Your task to perform on an android device: Toggle the flashlight Image 0: 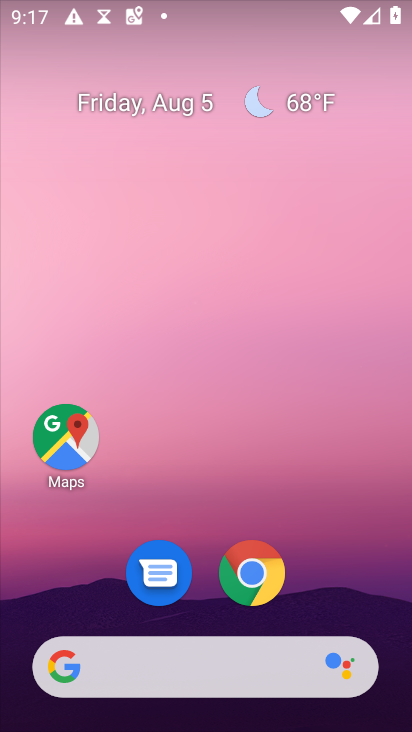
Step 0: drag from (159, 667) to (278, 96)
Your task to perform on an android device: Toggle the flashlight Image 1: 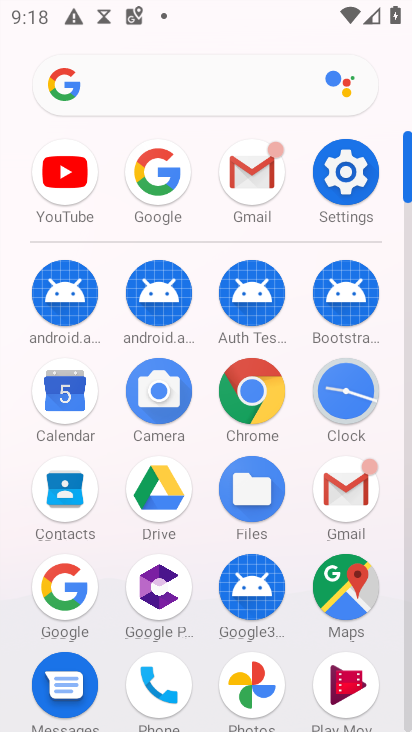
Step 1: click (346, 174)
Your task to perform on an android device: Toggle the flashlight Image 2: 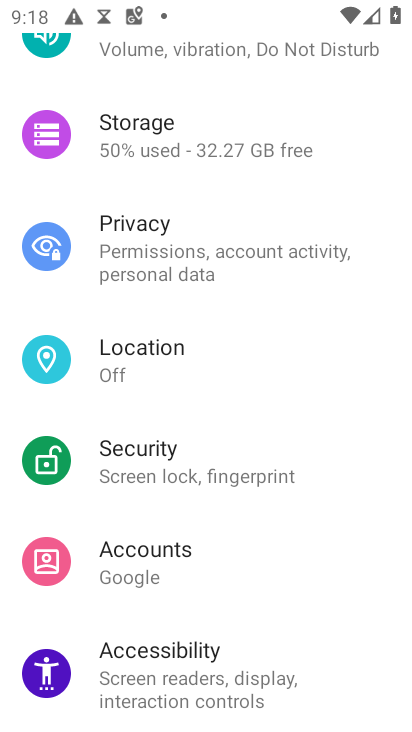
Step 2: drag from (346, 174) to (349, 581)
Your task to perform on an android device: Toggle the flashlight Image 3: 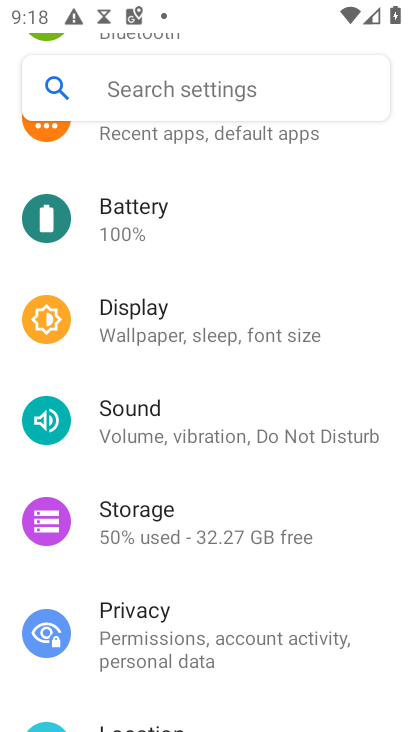
Step 3: click (256, 426)
Your task to perform on an android device: Toggle the flashlight Image 4: 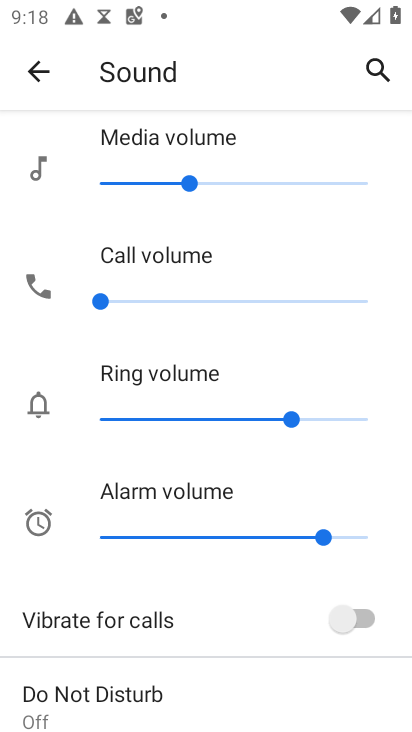
Step 4: drag from (201, 630) to (263, 438)
Your task to perform on an android device: Toggle the flashlight Image 5: 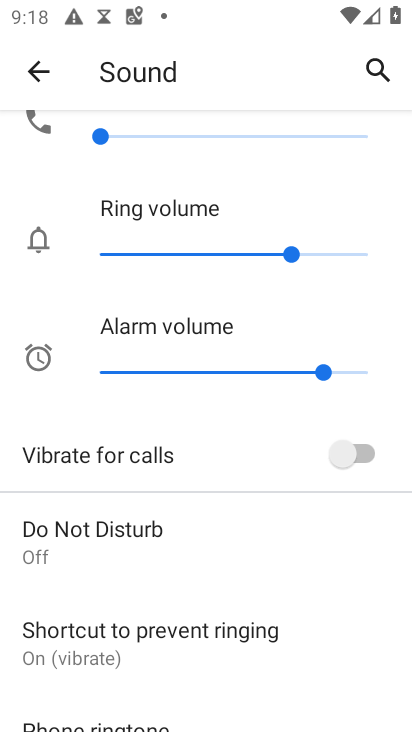
Step 5: drag from (163, 701) to (236, 513)
Your task to perform on an android device: Toggle the flashlight Image 6: 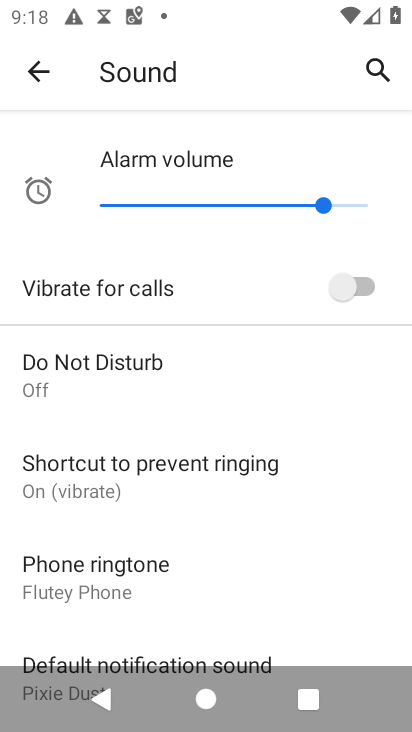
Step 6: drag from (198, 606) to (214, 413)
Your task to perform on an android device: Toggle the flashlight Image 7: 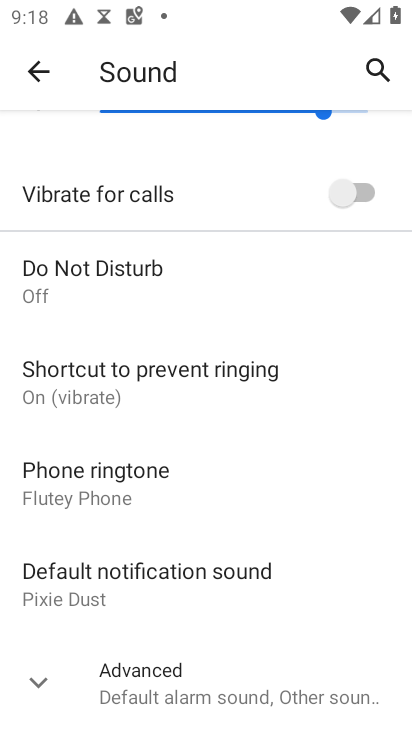
Step 7: drag from (203, 651) to (250, 500)
Your task to perform on an android device: Toggle the flashlight Image 8: 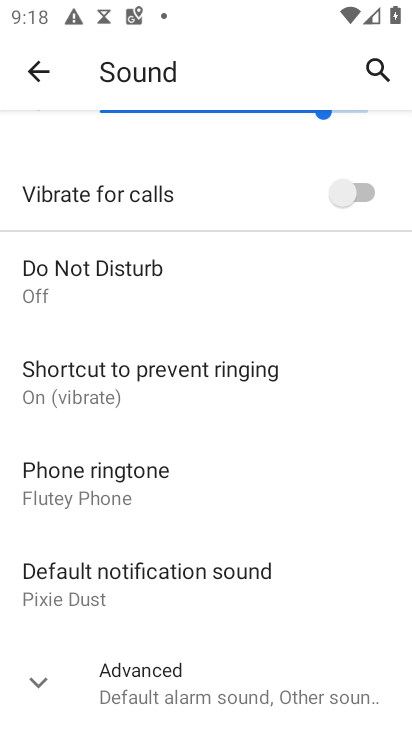
Step 8: click (157, 690)
Your task to perform on an android device: Toggle the flashlight Image 9: 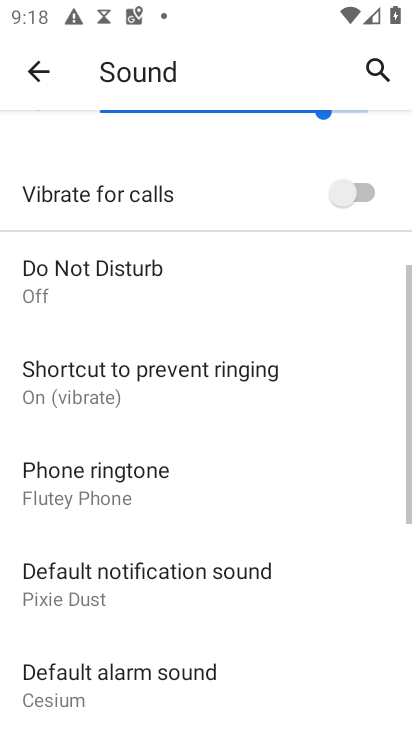
Step 9: drag from (157, 690) to (251, 512)
Your task to perform on an android device: Toggle the flashlight Image 10: 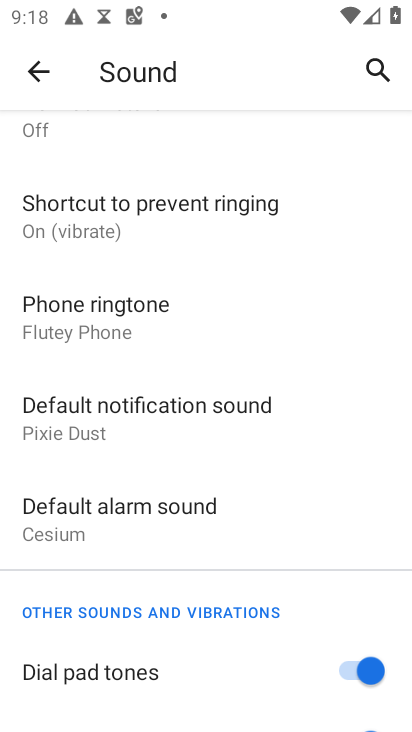
Step 10: drag from (192, 665) to (237, 485)
Your task to perform on an android device: Toggle the flashlight Image 11: 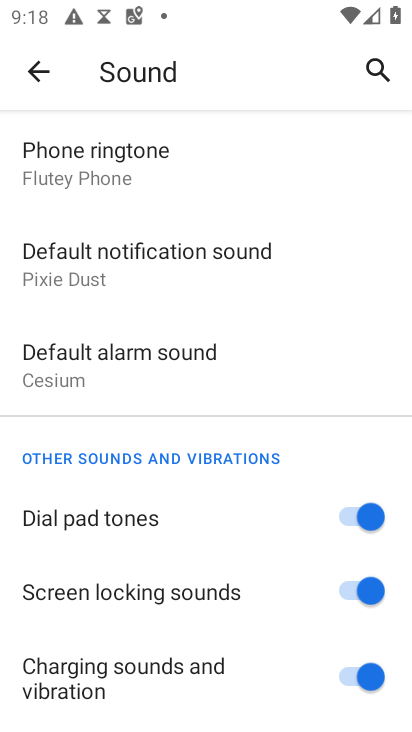
Step 11: drag from (159, 691) to (168, 338)
Your task to perform on an android device: Toggle the flashlight Image 12: 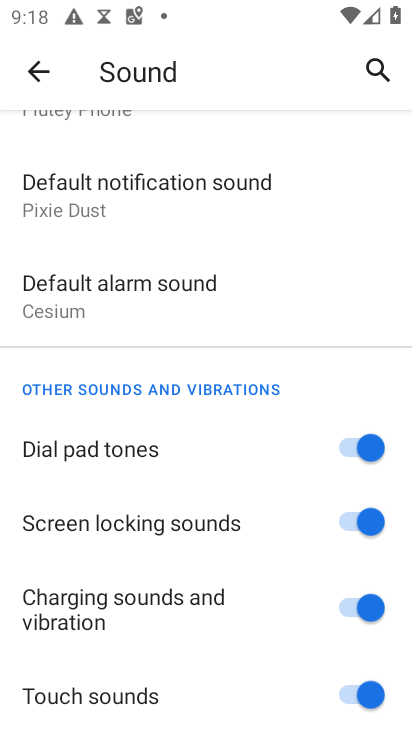
Step 12: press back button
Your task to perform on an android device: Toggle the flashlight Image 13: 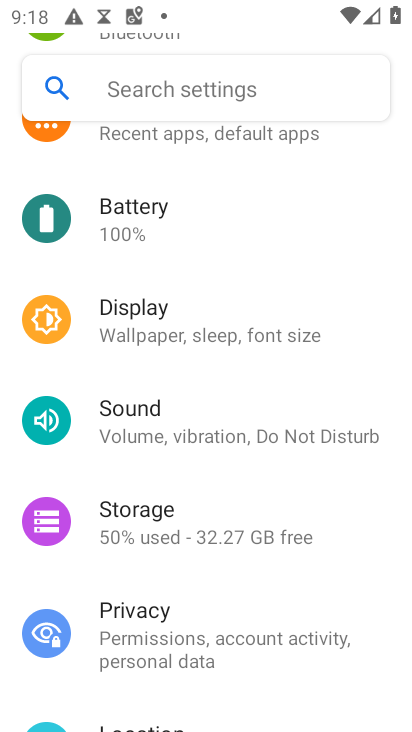
Step 13: click (175, 332)
Your task to perform on an android device: Toggle the flashlight Image 14: 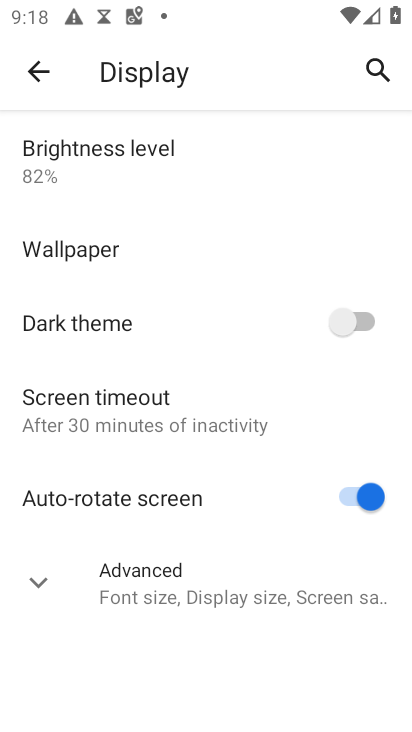
Step 14: click (184, 597)
Your task to perform on an android device: Toggle the flashlight Image 15: 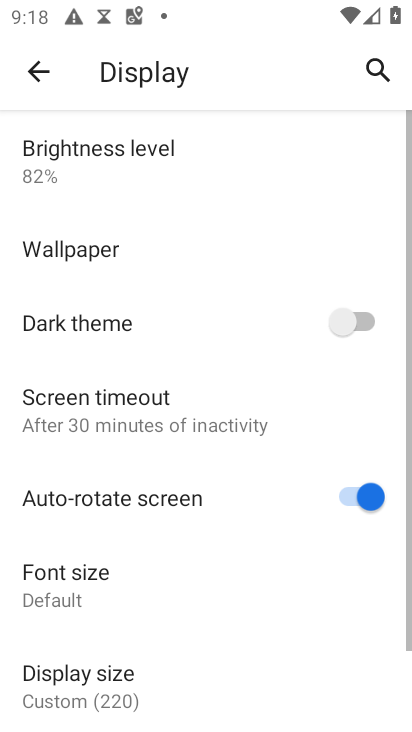
Step 15: drag from (170, 598) to (165, 326)
Your task to perform on an android device: Toggle the flashlight Image 16: 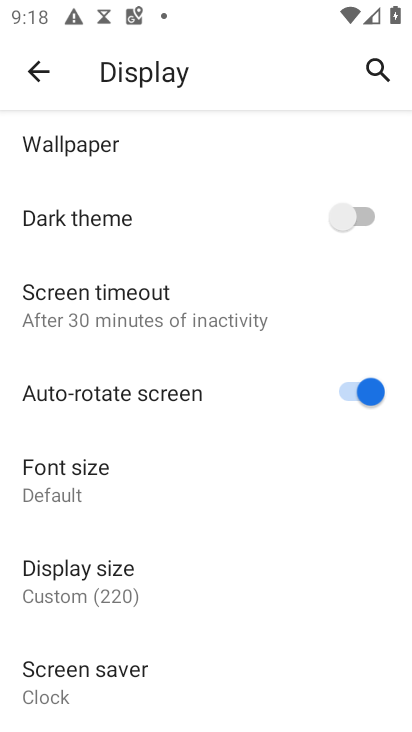
Step 16: drag from (75, 603) to (131, 455)
Your task to perform on an android device: Toggle the flashlight Image 17: 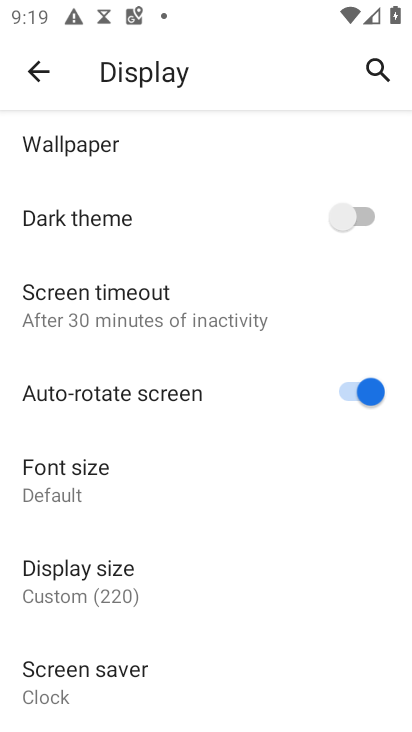
Step 17: press back button
Your task to perform on an android device: Toggle the flashlight Image 18: 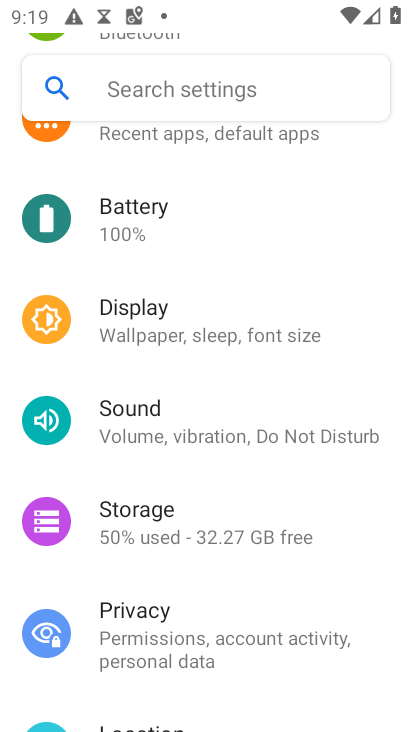
Step 18: drag from (207, 222) to (197, 296)
Your task to perform on an android device: Toggle the flashlight Image 19: 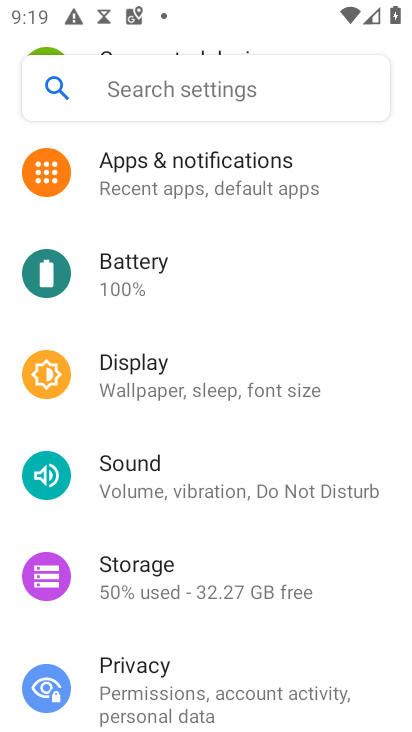
Step 19: click (168, 288)
Your task to perform on an android device: Toggle the flashlight Image 20: 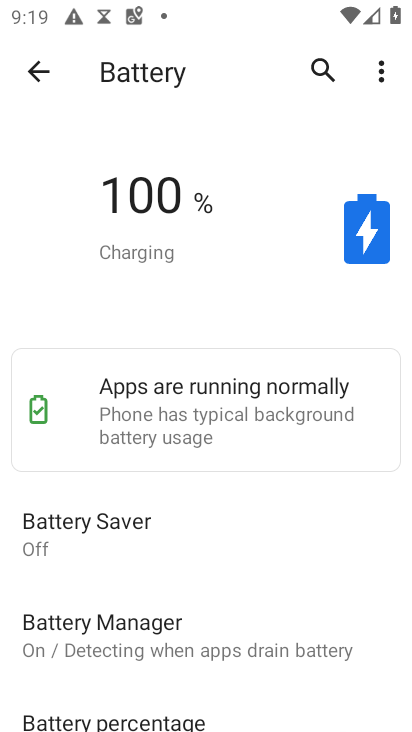
Step 20: task complete